Your task to perform on an android device: Open CNN.com Image 0: 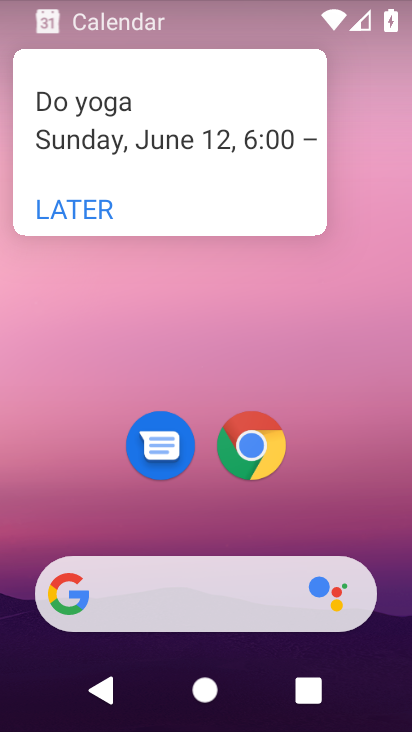
Step 0: click (201, 585)
Your task to perform on an android device: Open CNN.com Image 1: 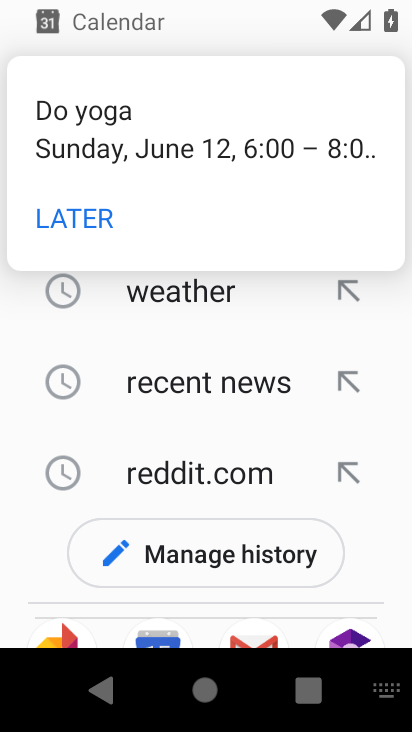
Step 1: click (86, 217)
Your task to perform on an android device: Open CNN.com Image 2: 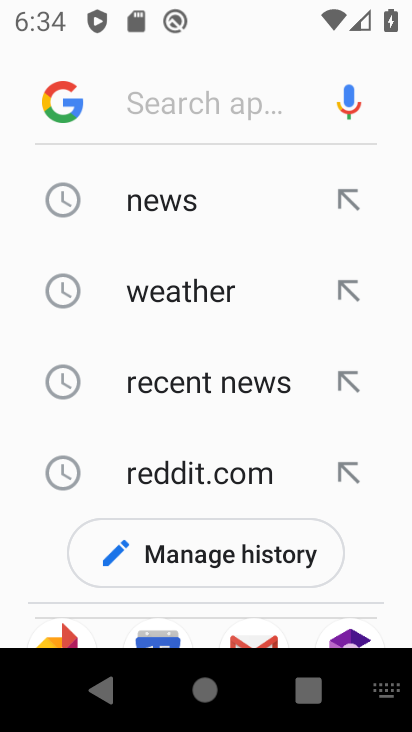
Step 2: type "cnn.com"
Your task to perform on an android device: Open CNN.com Image 3: 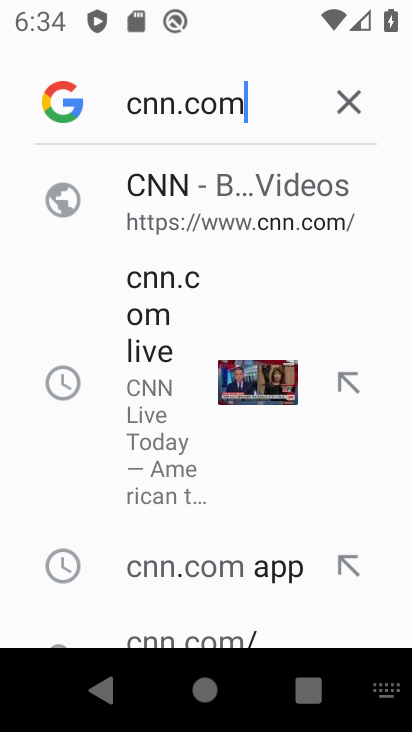
Step 3: click (155, 203)
Your task to perform on an android device: Open CNN.com Image 4: 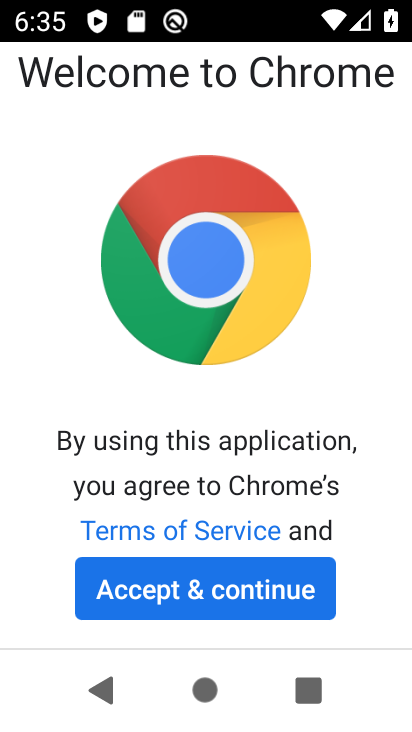
Step 4: click (245, 597)
Your task to perform on an android device: Open CNN.com Image 5: 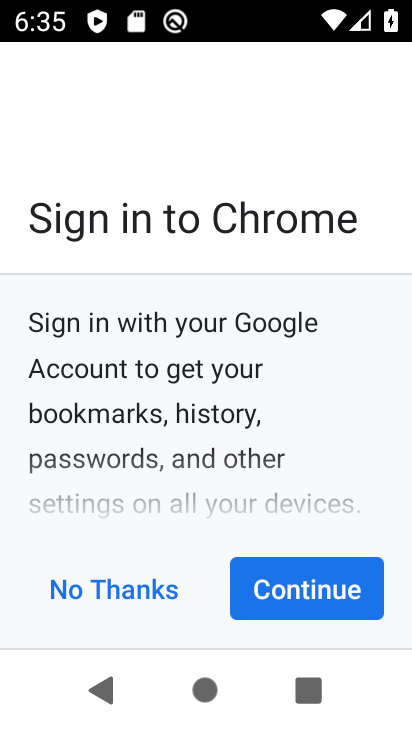
Step 5: click (285, 605)
Your task to perform on an android device: Open CNN.com Image 6: 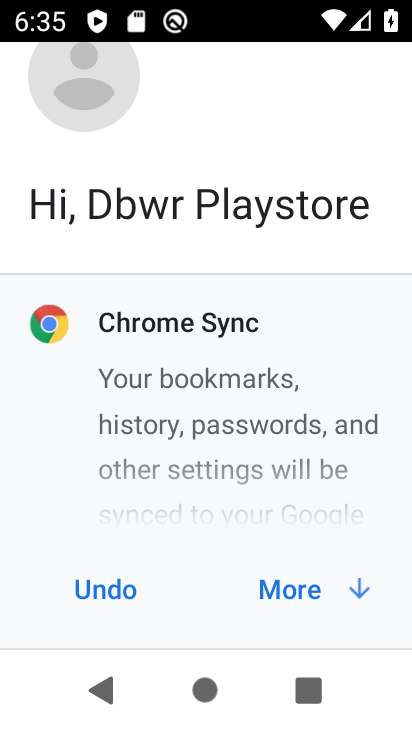
Step 6: click (356, 598)
Your task to perform on an android device: Open CNN.com Image 7: 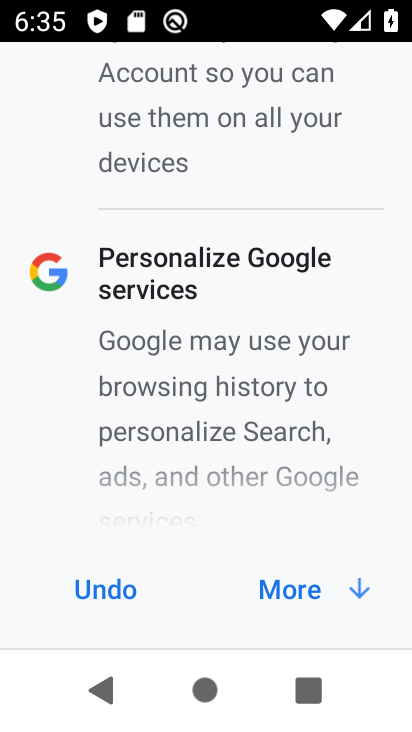
Step 7: click (318, 593)
Your task to perform on an android device: Open CNN.com Image 8: 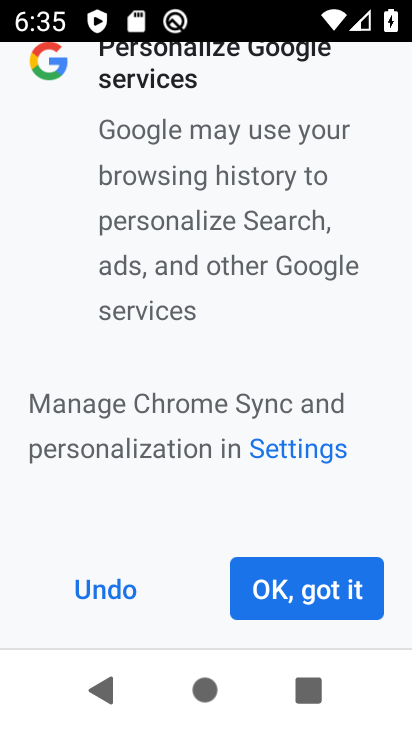
Step 8: click (318, 593)
Your task to perform on an android device: Open CNN.com Image 9: 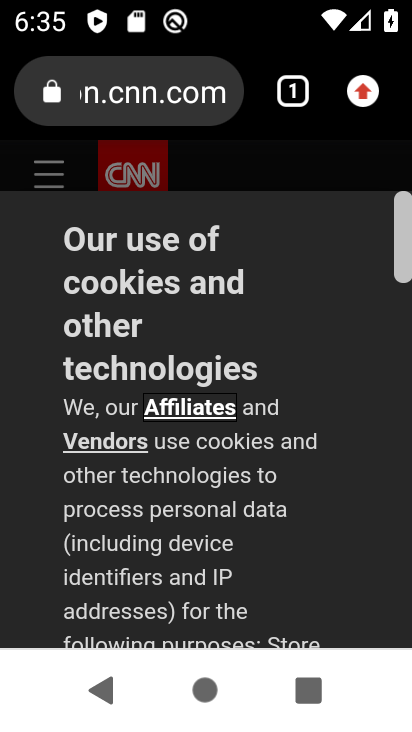
Step 9: task complete